Your task to perform on an android device: What is the news today? Image 0: 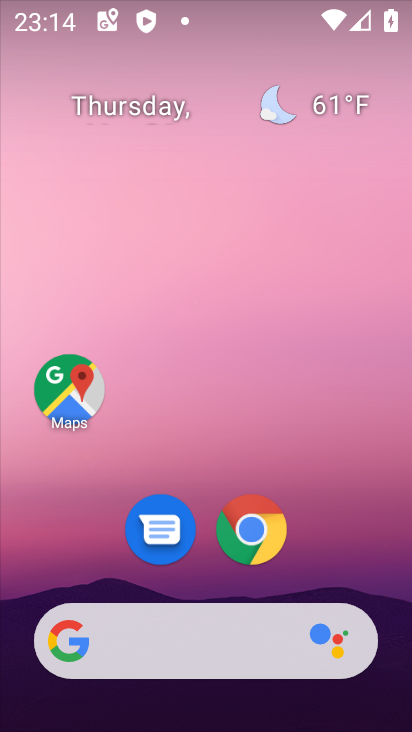
Step 0: drag from (340, 521) to (336, 98)
Your task to perform on an android device: What is the news today? Image 1: 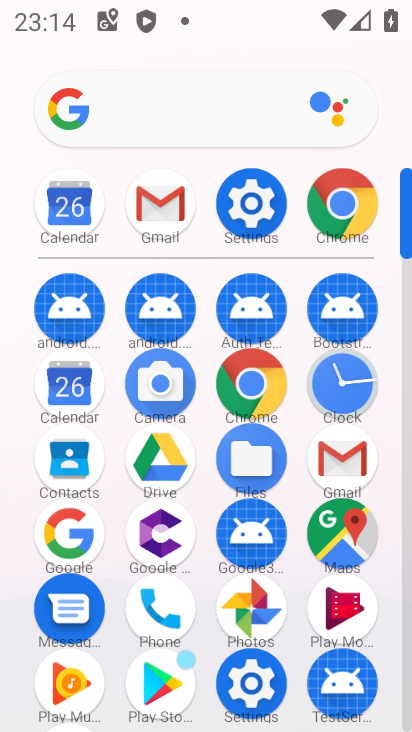
Step 1: click (248, 111)
Your task to perform on an android device: What is the news today? Image 2: 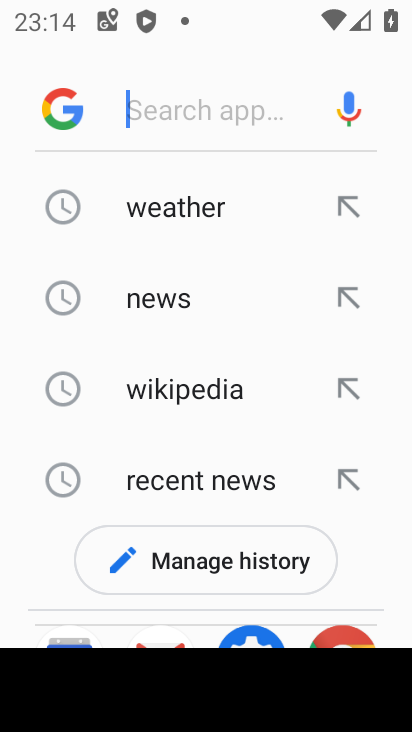
Step 2: click (186, 292)
Your task to perform on an android device: What is the news today? Image 3: 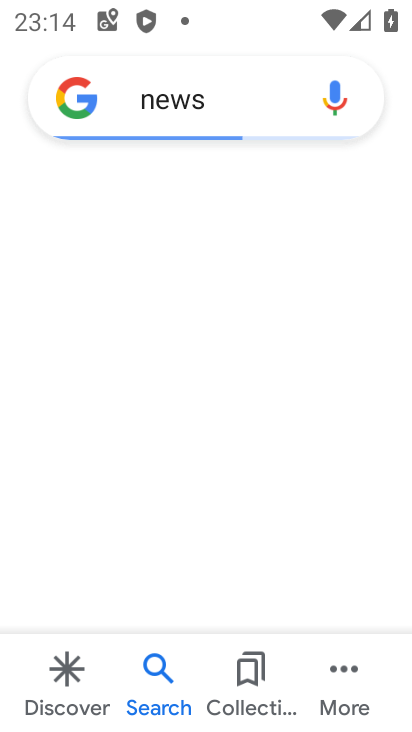
Step 3: task complete